Your task to perform on an android device: turn smart compose on in the gmail app Image 0: 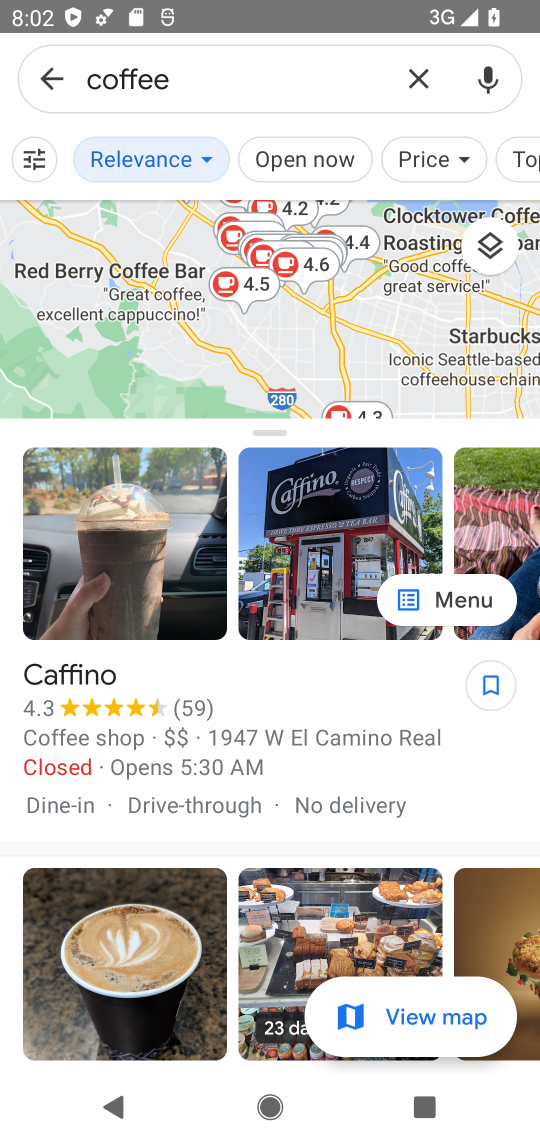
Step 0: press home button
Your task to perform on an android device: turn smart compose on in the gmail app Image 1: 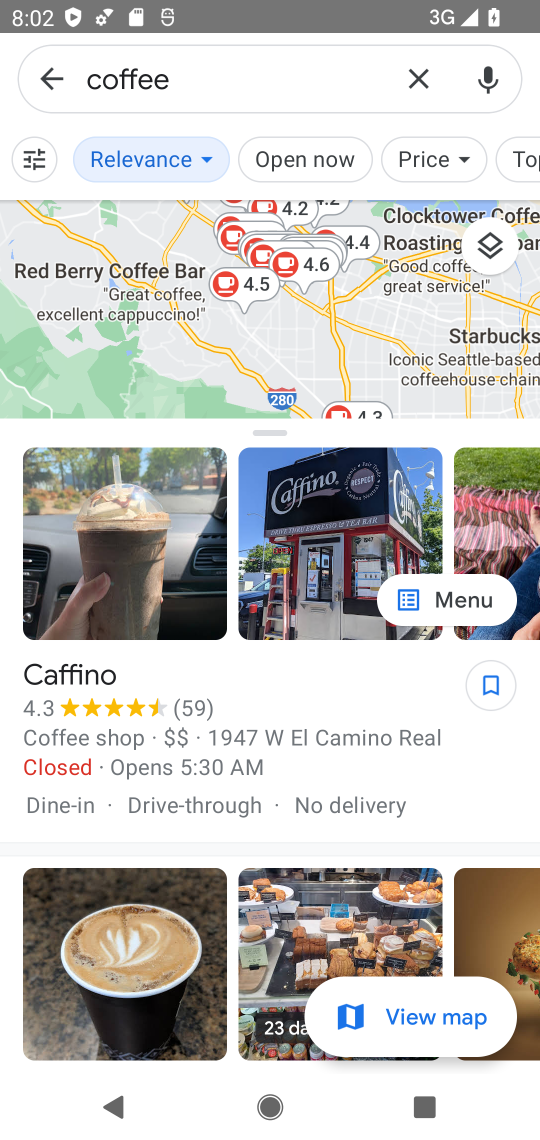
Step 1: press home button
Your task to perform on an android device: turn smart compose on in the gmail app Image 2: 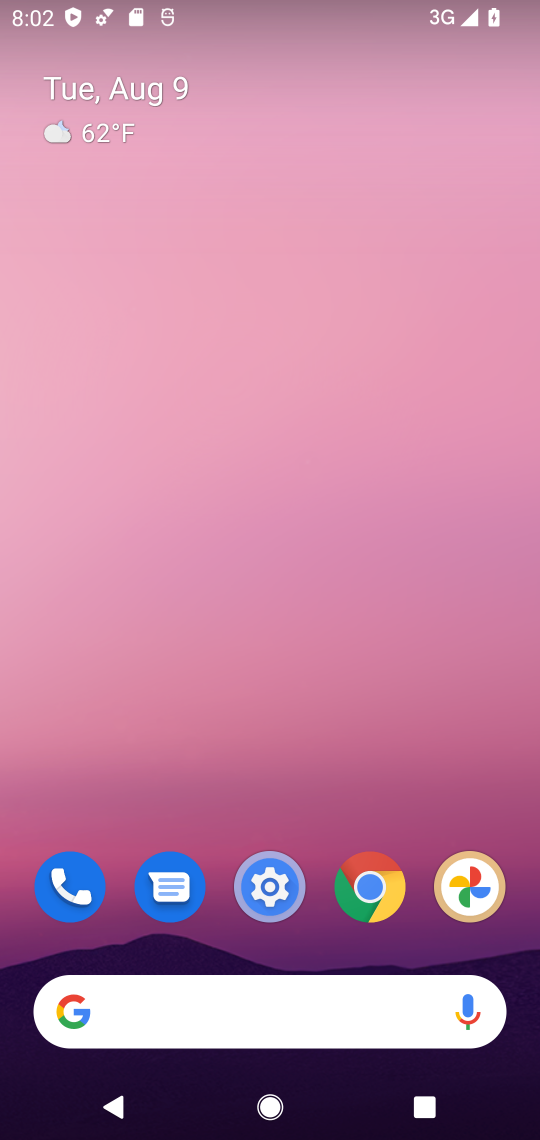
Step 2: drag from (315, 789) to (321, 0)
Your task to perform on an android device: turn smart compose on in the gmail app Image 3: 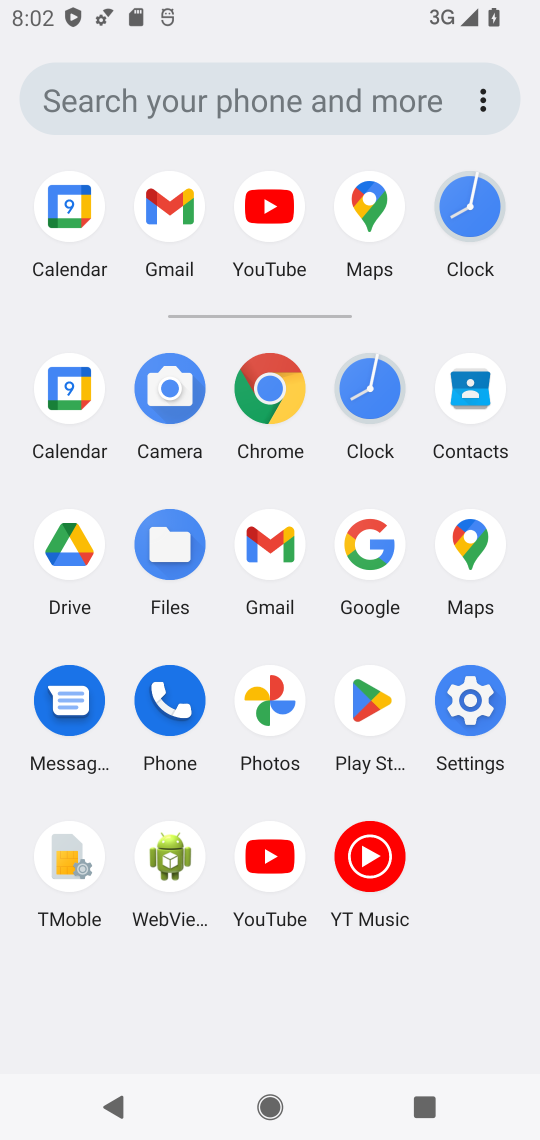
Step 3: click (176, 195)
Your task to perform on an android device: turn smart compose on in the gmail app Image 4: 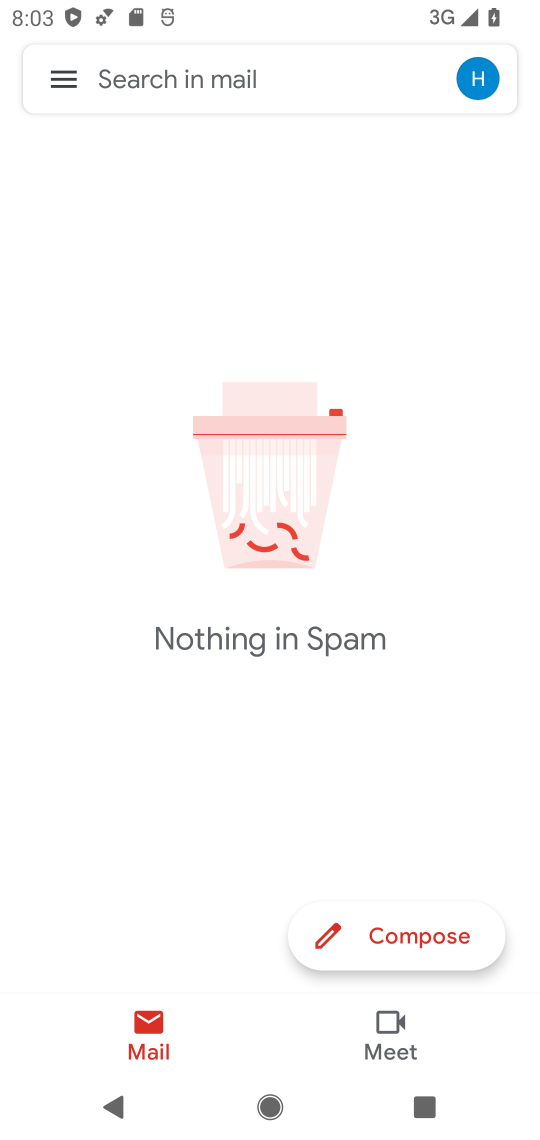
Step 4: click (51, 67)
Your task to perform on an android device: turn smart compose on in the gmail app Image 5: 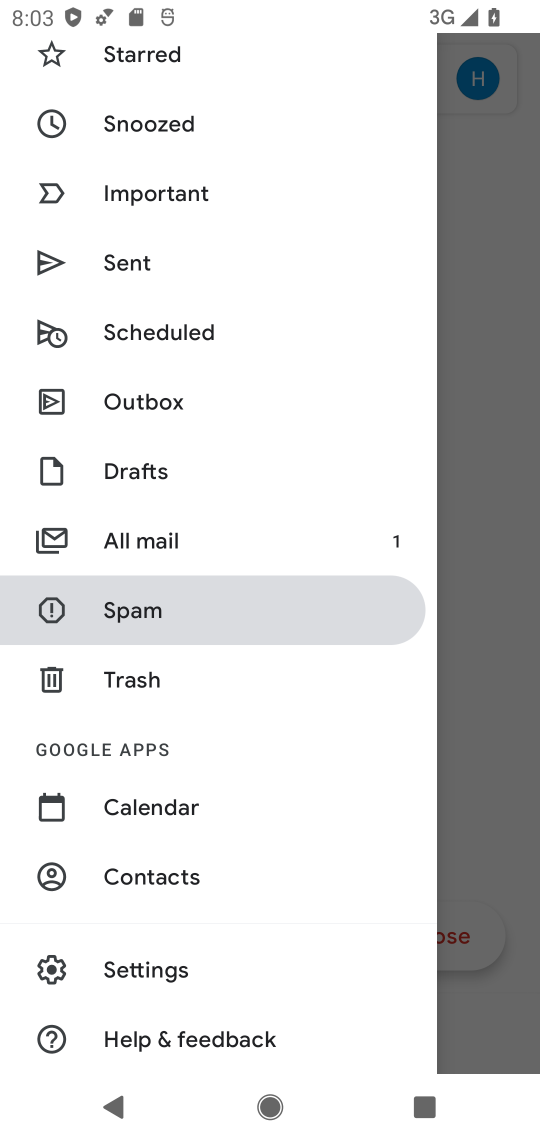
Step 5: click (191, 958)
Your task to perform on an android device: turn smart compose on in the gmail app Image 6: 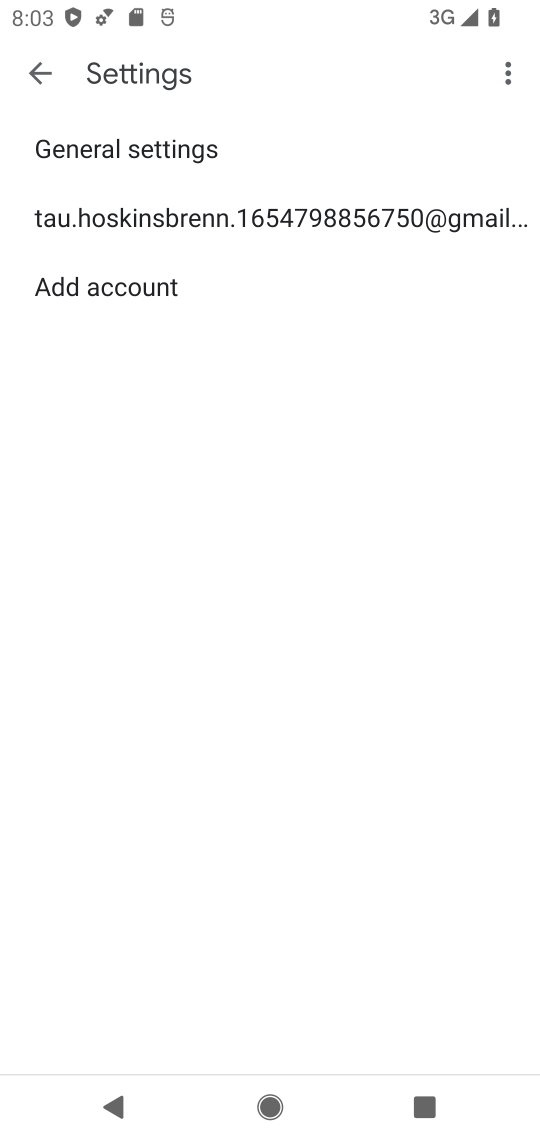
Step 6: click (346, 219)
Your task to perform on an android device: turn smart compose on in the gmail app Image 7: 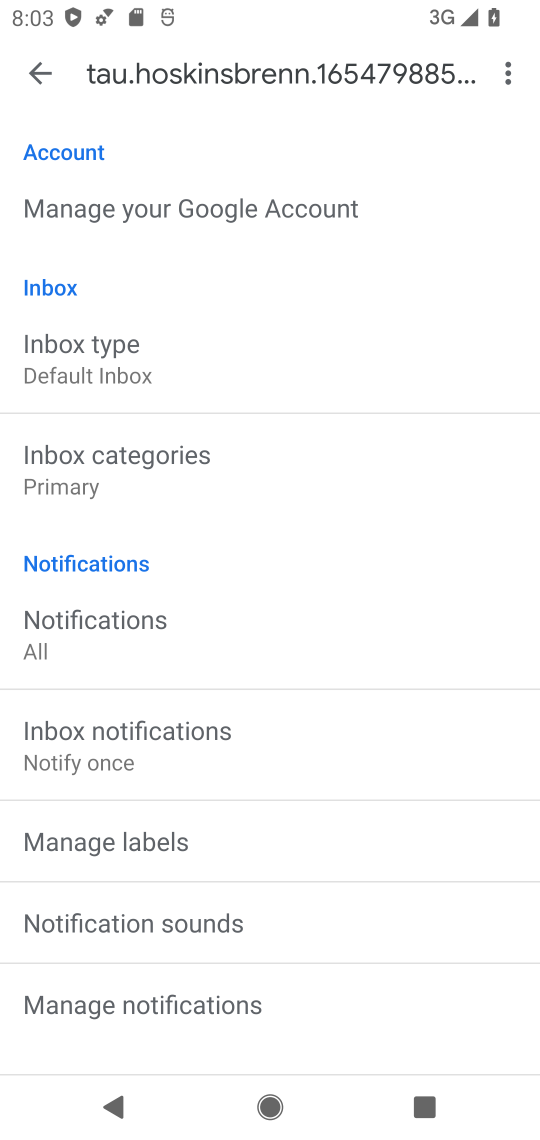
Step 7: task complete